Your task to perform on an android device: Go to Wikipedia Image 0: 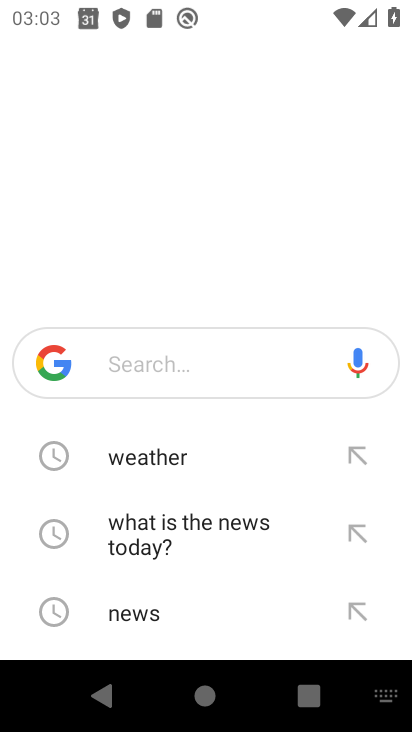
Step 0: press back button
Your task to perform on an android device: Go to Wikipedia Image 1: 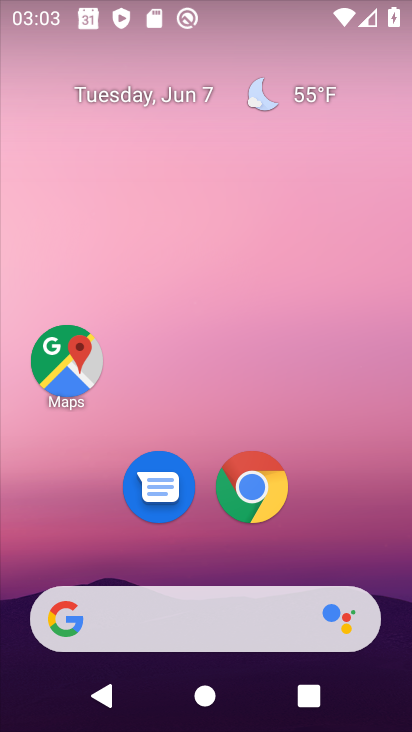
Step 1: drag from (237, 480) to (247, 68)
Your task to perform on an android device: Go to Wikipedia Image 2: 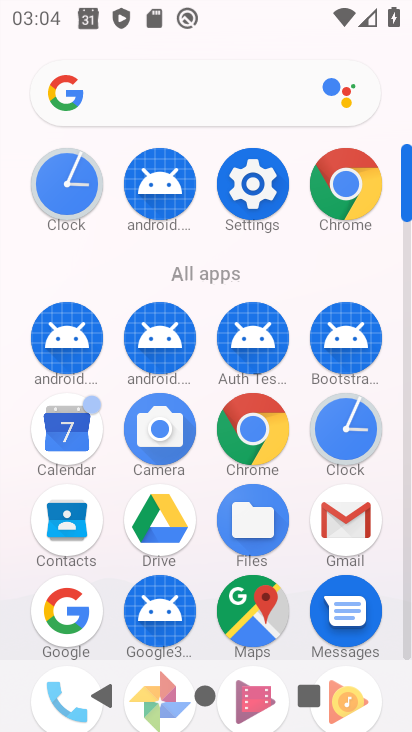
Step 2: click (220, 124)
Your task to perform on an android device: Go to Wikipedia Image 3: 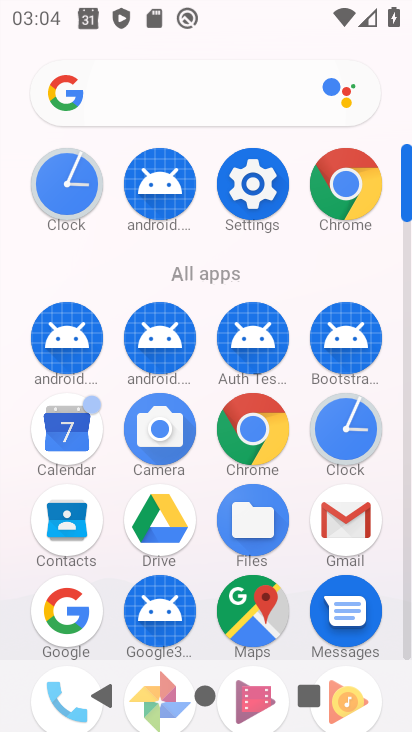
Step 3: click (175, 140)
Your task to perform on an android device: Go to Wikipedia Image 4: 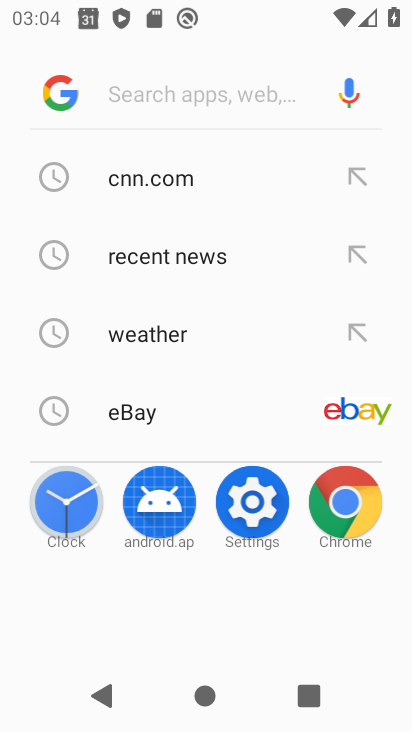
Step 4: drag from (201, 523) to (164, 252)
Your task to perform on an android device: Go to Wikipedia Image 5: 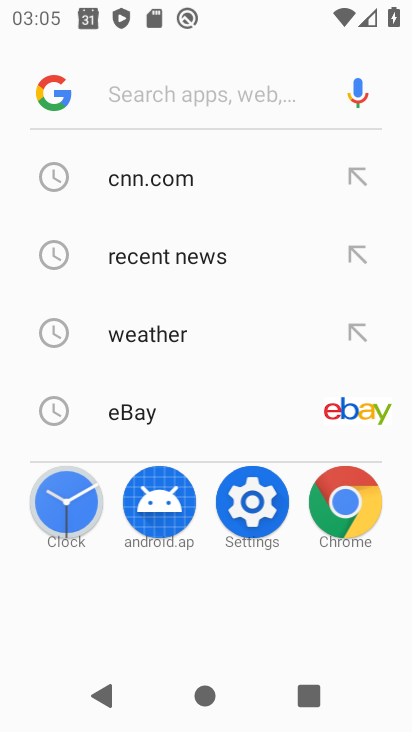
Step 5: press back button
Your task to perform on an android device: Go to Wikipedia Image 6: 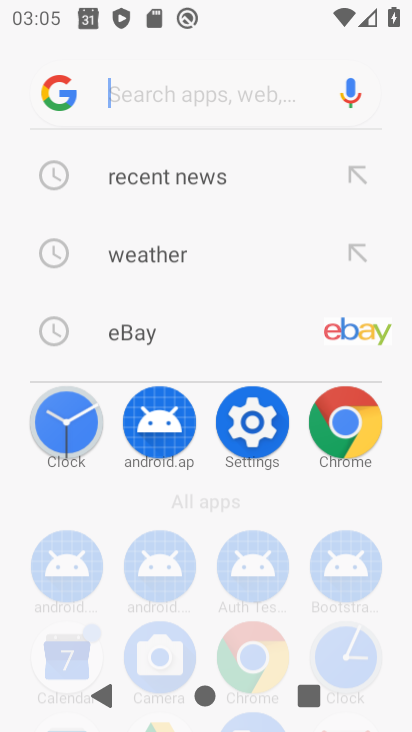
Step 6: press back button
Your task to perform on an android device: Go to Wikipedia Image 7: 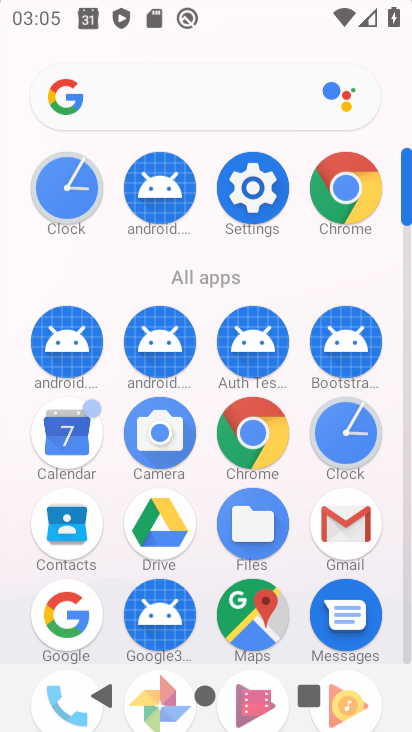
Step 7: press back button
Your task to perform on an android device: Go to Wikipedia Image 8: 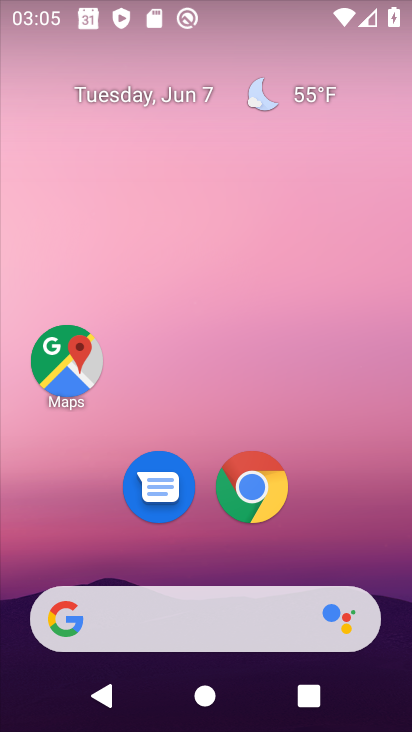
Step 8: drag from (276, 696) to (254, 226)
Your task to perform on an android device: Go to Wikipedia Image 9: 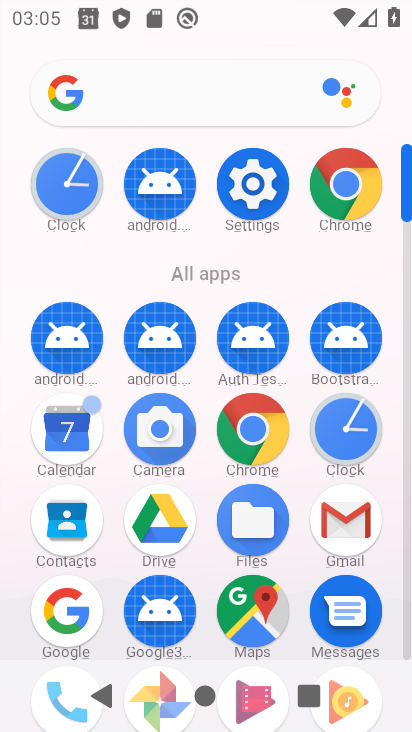
Step 9: click (327, 177)
Your task to perform on an android device: Go to Wikipedia Image 10: 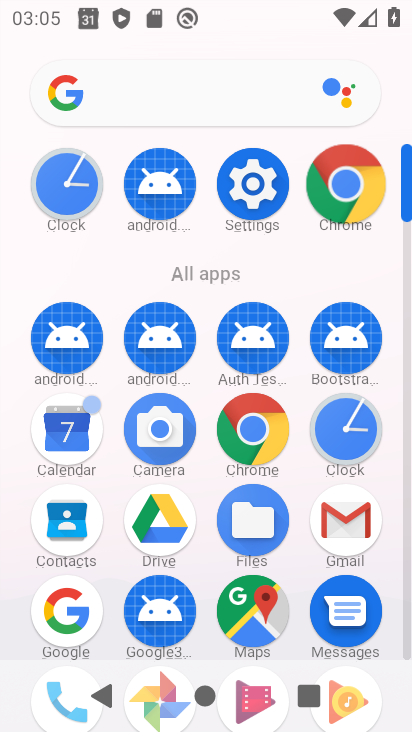
Step 10: click (345, 183)
Your task to perform on an android device: Go to Wikipedia Image 11: 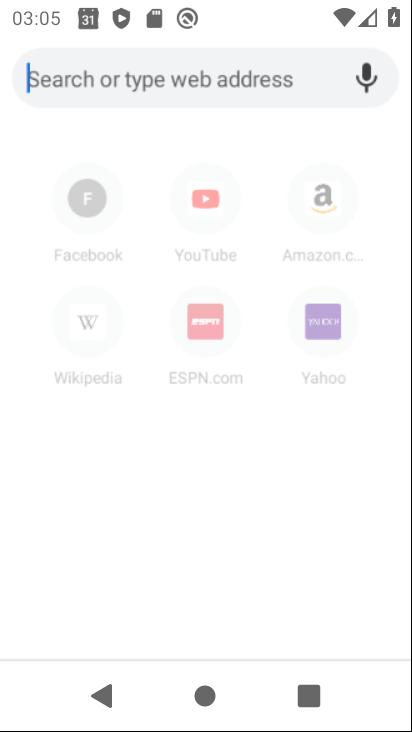
Step 11: click (345, 183)
Your task to perform on an android device: Go to Wikipedia Image 12: 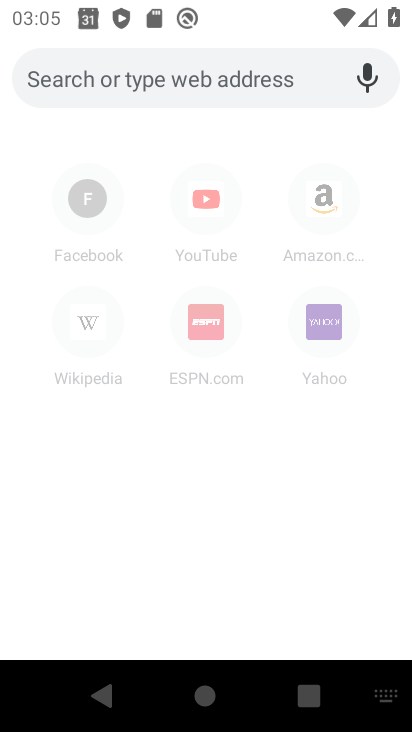
Step 12: click (77, 330)
Your task to perform on an android device: Go to Wikipedia Image 13: 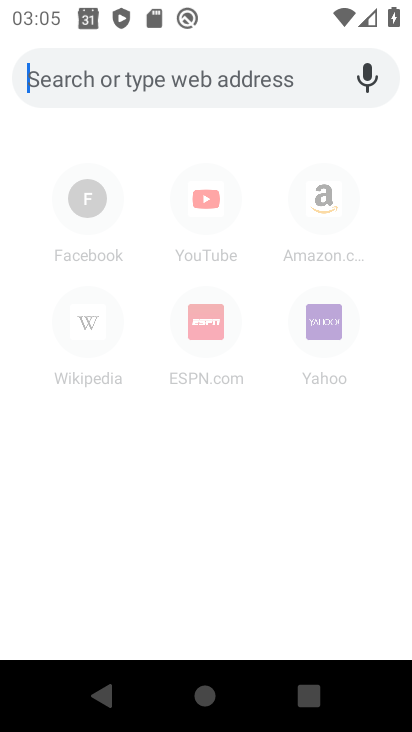
Step 13: click (86, 329)
Your task to perform on an android device: Go to Wikipedia Image 14: 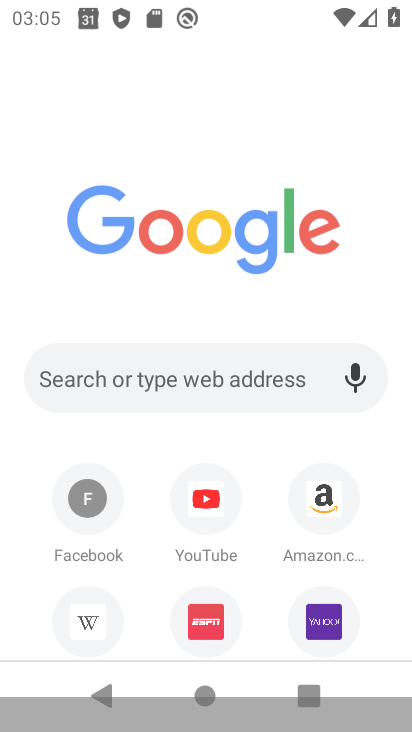
Step 14: click (86, 328)
Your task to perform on an android device: Go to Wikipedia Image 15: 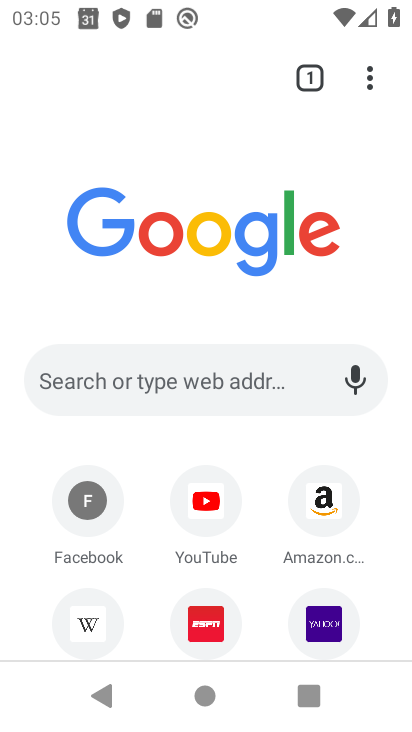
Step 15: click (82, 326)
Your task to perform on an android device: Go to Wikipedia Image 16: 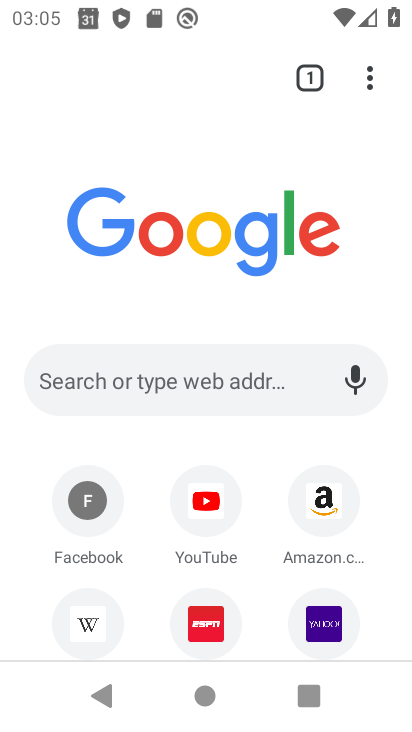
Step 16: click (81, 326)
Your task to perform on an android device: Go to Wikipedia Image 17: 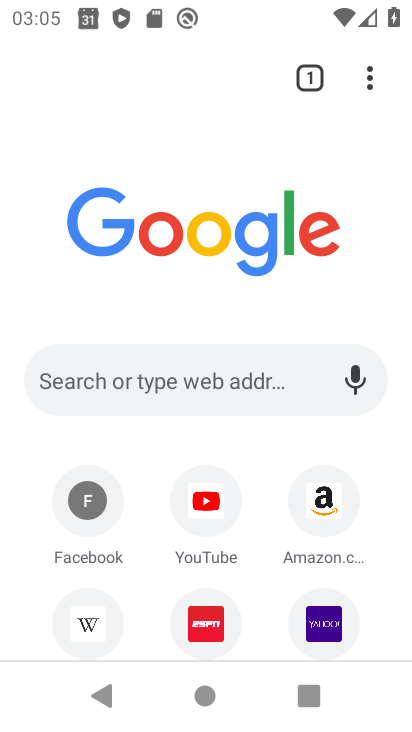
Step 17: click (98, 626)
Your task to perform on an android device: Go to Wikipedia Image 18: 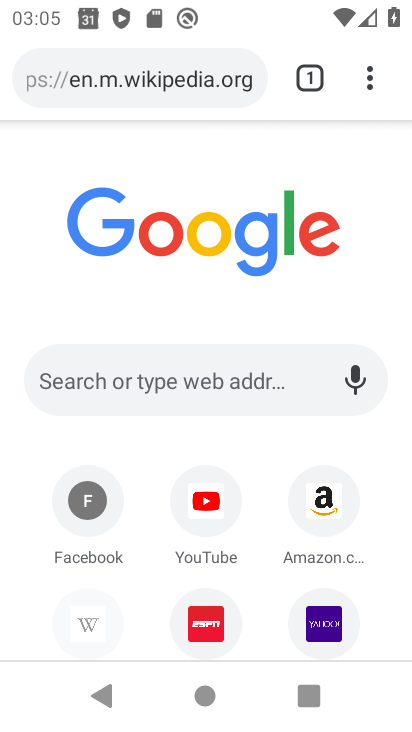
Step 18: click (94, 630)
Your task to perform on an android device: Go to Wikipedia Image 19: 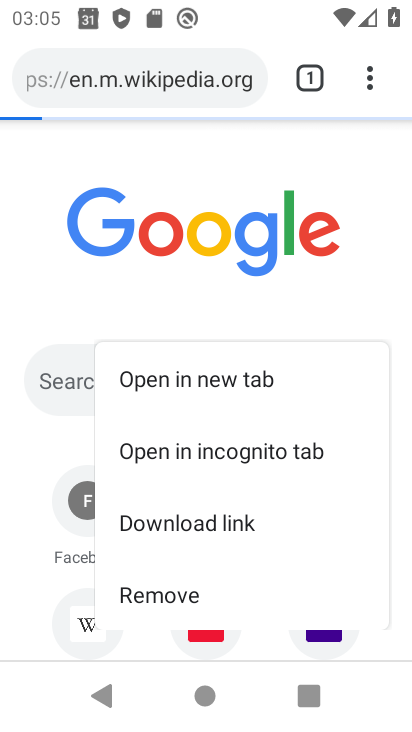
Step 19: click (109, 644)
Your task to perform on an android device: Go to Wikipedia Image 20: 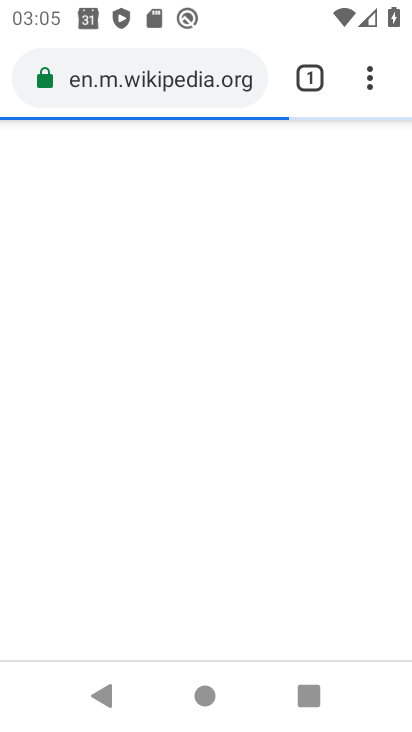
Step 20: task complete